Your task to perform on an android device: delete the emails in spam in the gmail app Image 0: 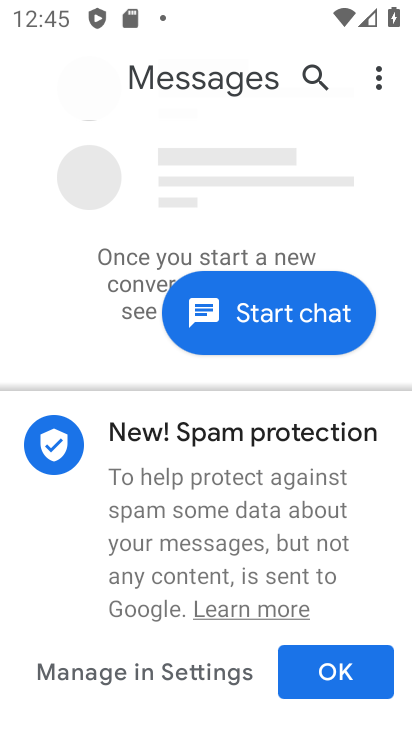
Step 0: press home button
Your task to perform on an android device: delete the emails in spam in the gmail app Image 1: 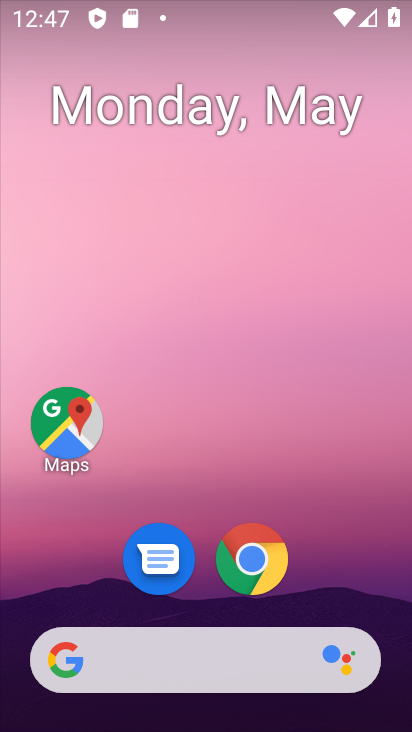
Step 1: drag from (180, 716) to (229, 173)
Your task to perform on an android device: delete the emails in spam in the gmail app Image 2: 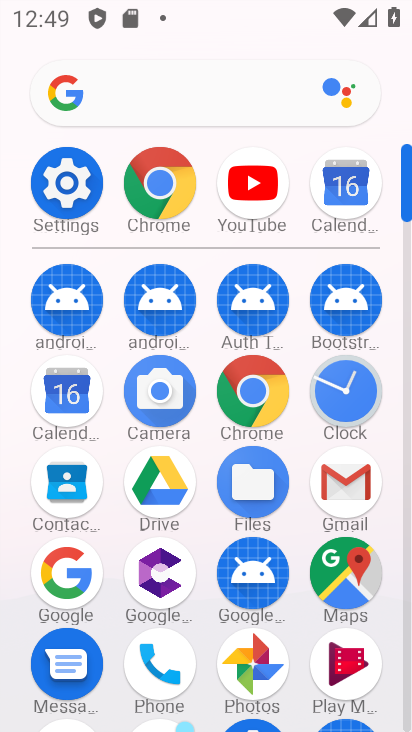
Step 2: click (346, 473)
Your task to perform on an android device: delete the emails in spam in the gmail app Image 3: 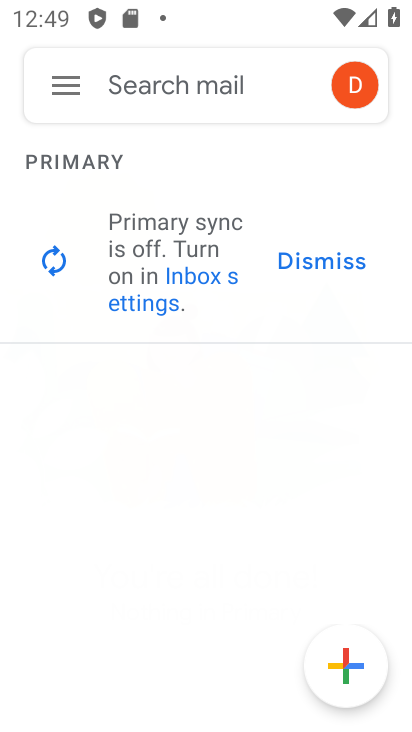
Step 3: click (47, 82)
Your task to perform on an android device: delete the emails in spam in the gmail app Image 4: 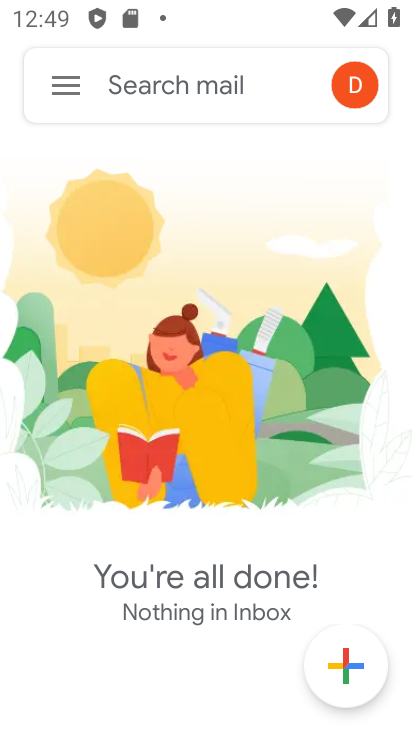
Step 4: click (64, 81)
Your task to perform on an android device: delete the emails in spam in the gmail app Image 5: 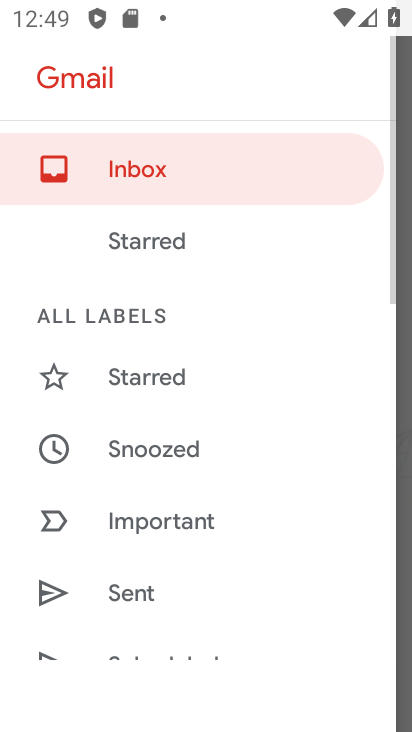
Step 5: drag from (248, 648) to (236, 209)
Your task to perform on an android device: delete the emails in spam in the gmail app Image 6: 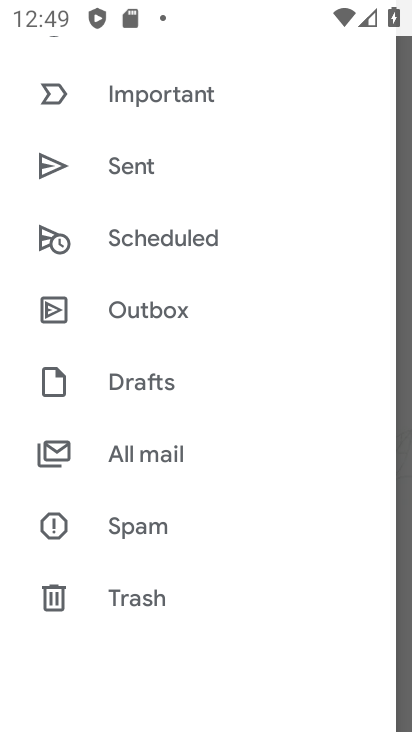
Step 6: click (169, 519)
Your task to perform on an android device: delete the emails in spam in the gmail app Image 7: 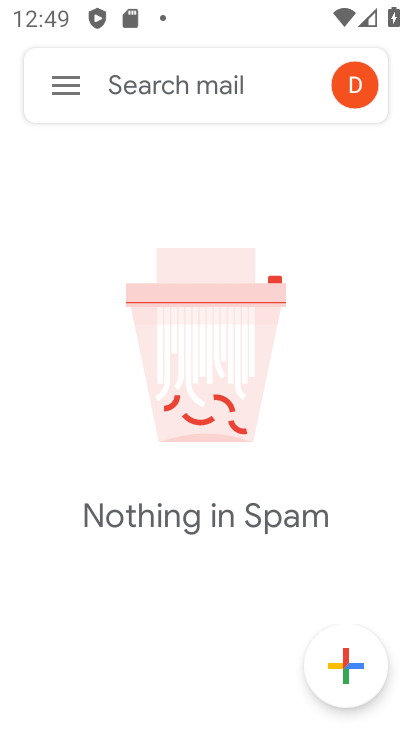
Step 7: task complete